Your task to perform on an android device: Search for macbook pro on walmart.com, select the first entry, and add it to the cart. Image 0: 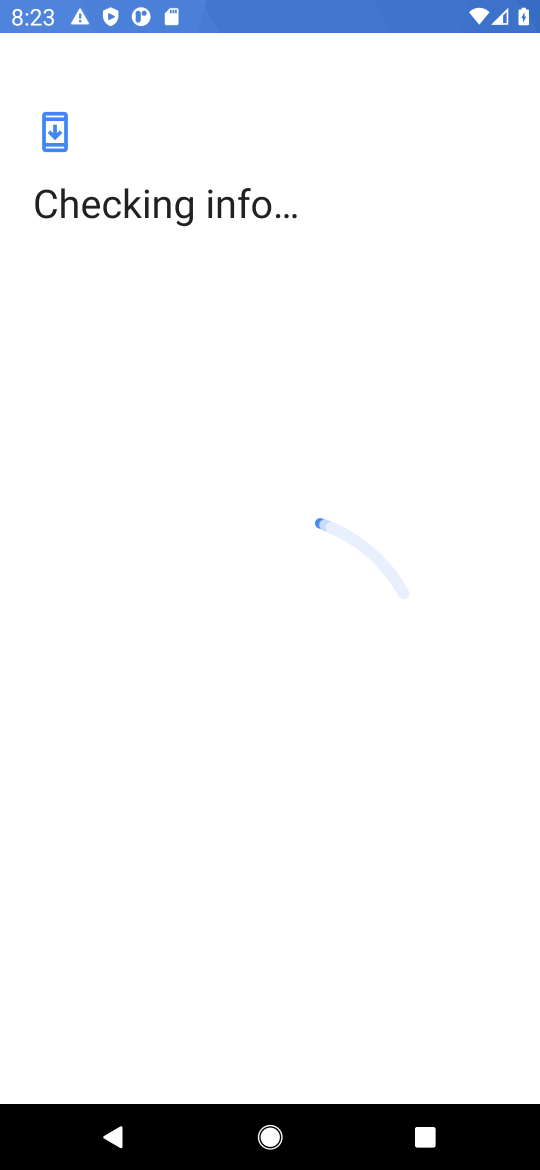
Step 0: press home button
Your task to perform on an android device: Search for macbook pro on walmart.com, select the first entry, and add it to the cart. Image 1: 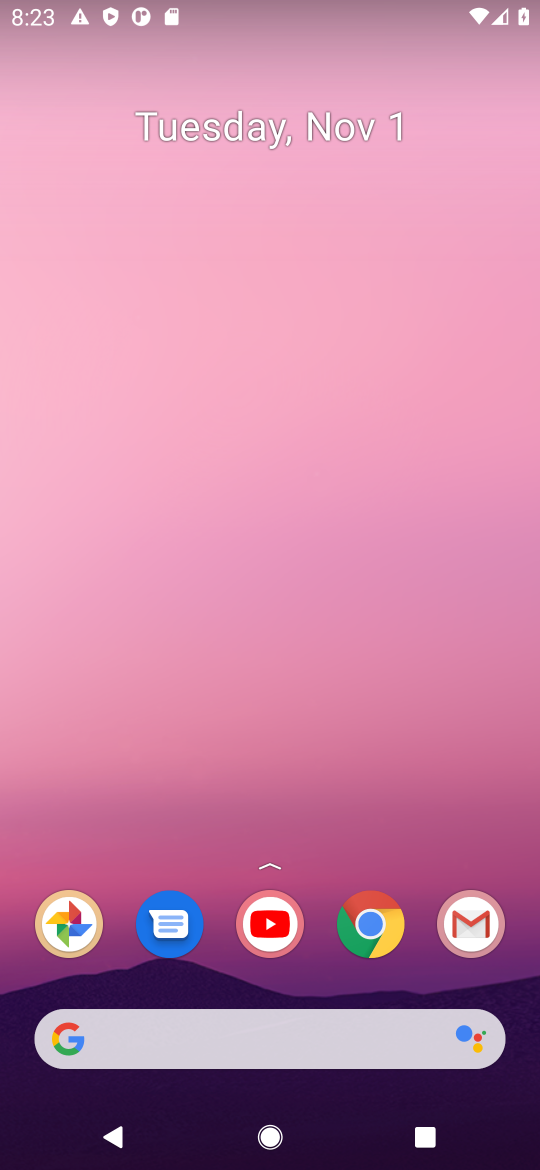
Step 1: click (107, 1046)
Your task to perform on an android device: Search for macbook pro on walmart.com, select the first entry, and add it to the cart. Image 2: 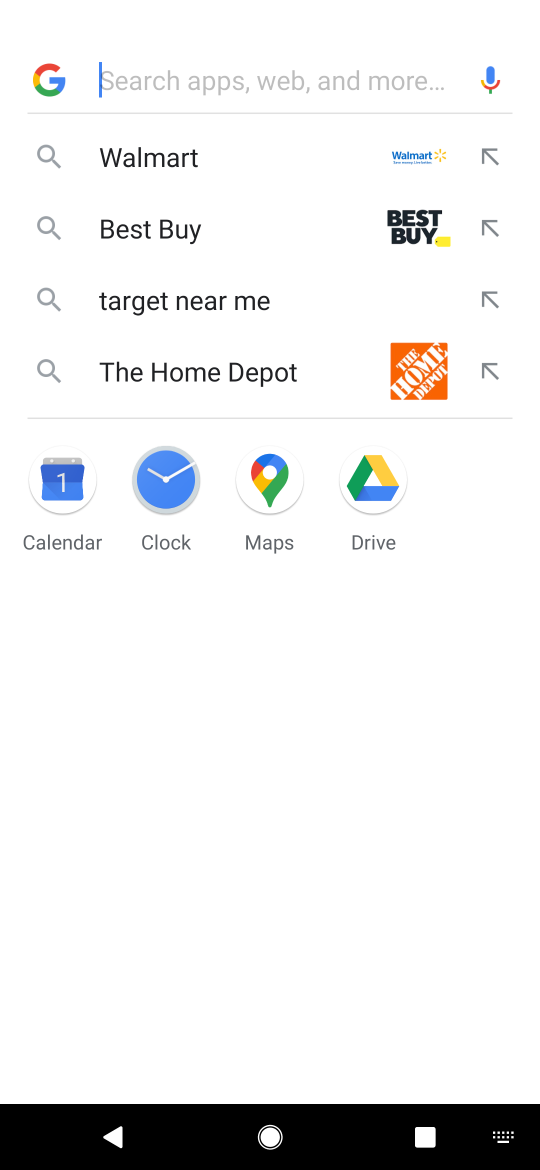
Step 2: type "walmart.com"
Your task to perform on an android device: Search for macbook pro on walmart.com, select the first entry, and add it to the cart. Image 3: 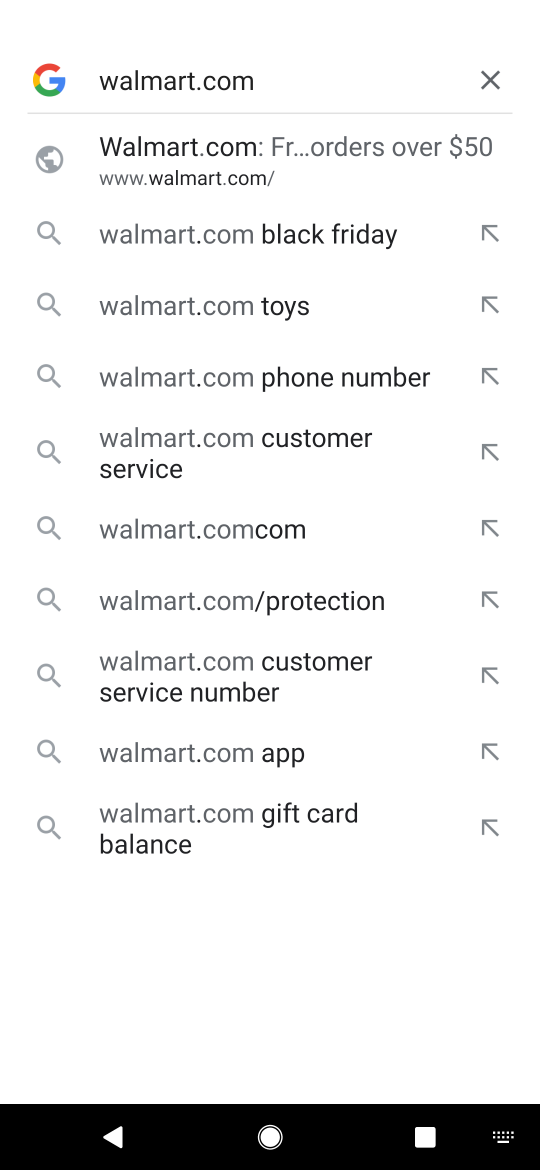
Step 3: press enter
Your task to perform on an android device: Search for macbook pro on walmart.com, select the first entry, and add it to the cart. Image 4: 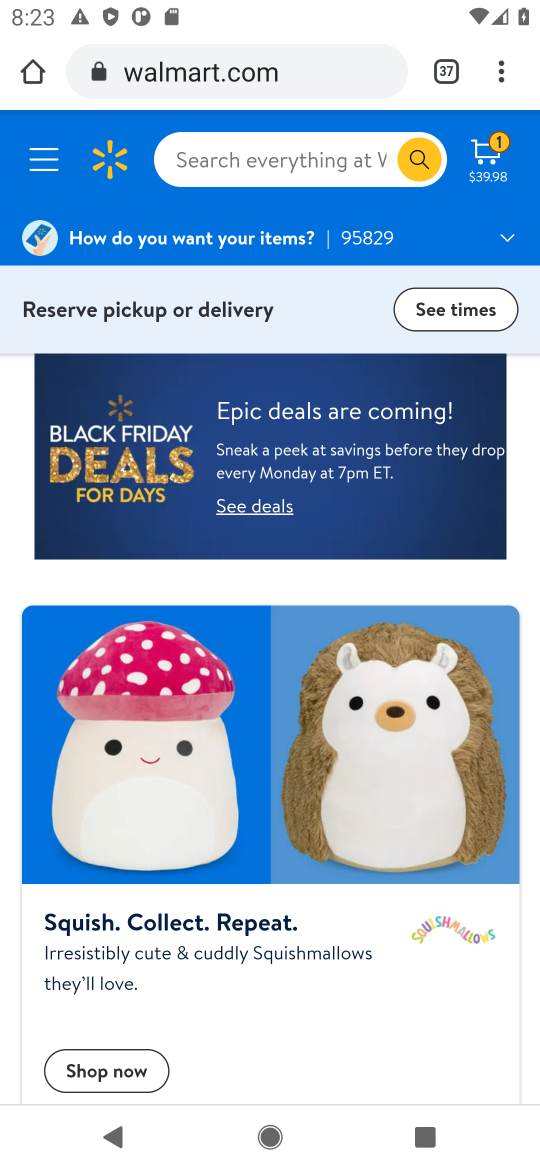
Step 4: click (195, 155)
Your task to perform on an android device: Search for macbook pro on walmart.com, select the first entry, and add it to the cart. Image 5: 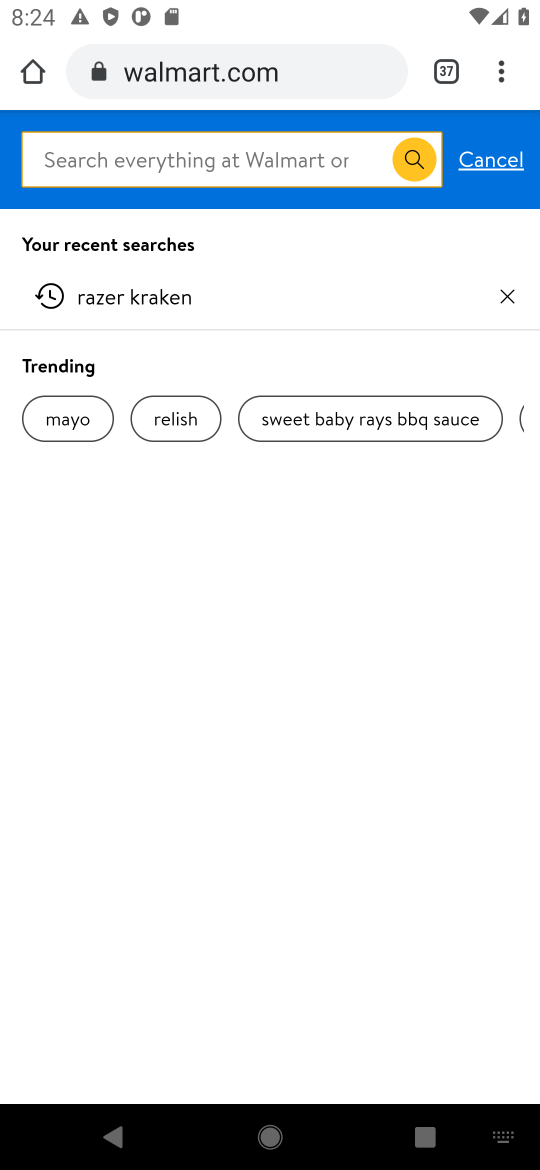
Step 5: type "macbook pro"
Your task to perform on an android device: Search for macbook pro on walmart.com, select the first entry, and add it to the cart. Image 6: 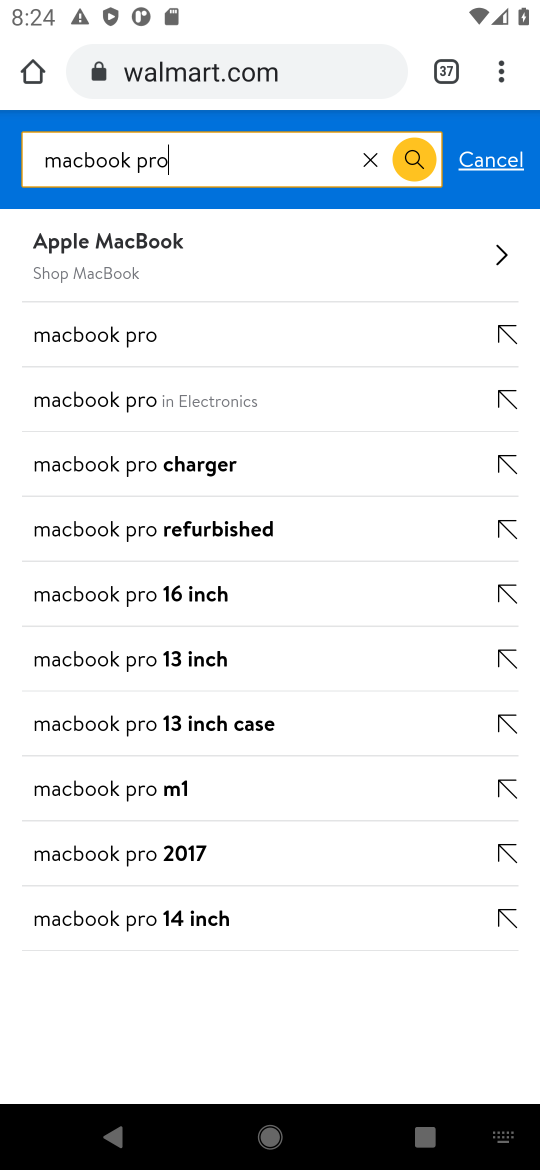
Step 6: click (409, 150)
Your task to perform on an android device: Search for macbook pro on walmart.com, select the first entry, and add it to the cart. Image 7: 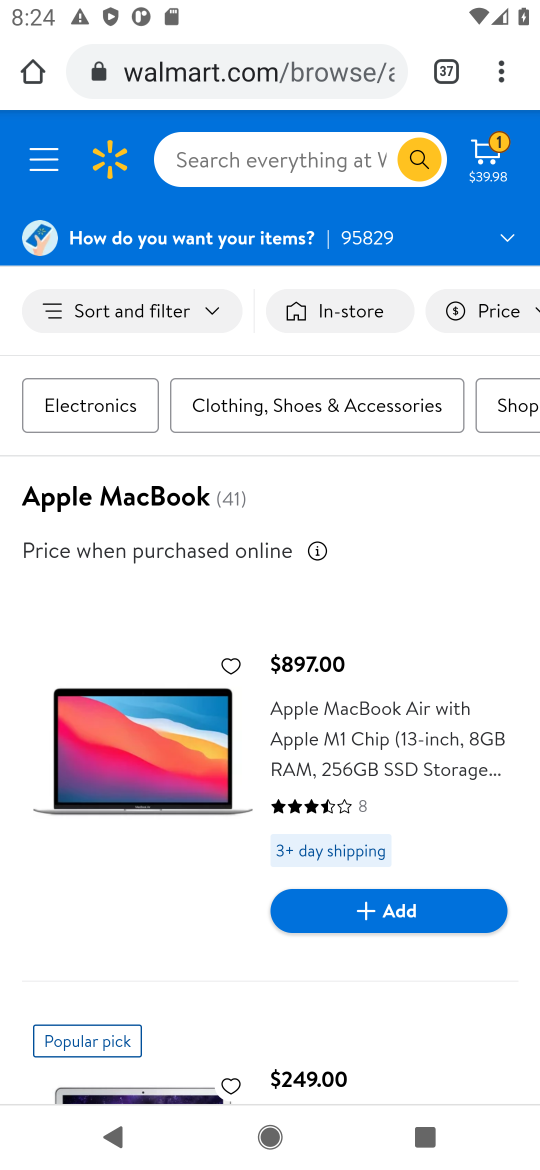
Step 7: click (394, 912)
Your task to perform on an android device: Search for macbook pro on walmart.com, select the first entry, and add it to the cart. Image 8: 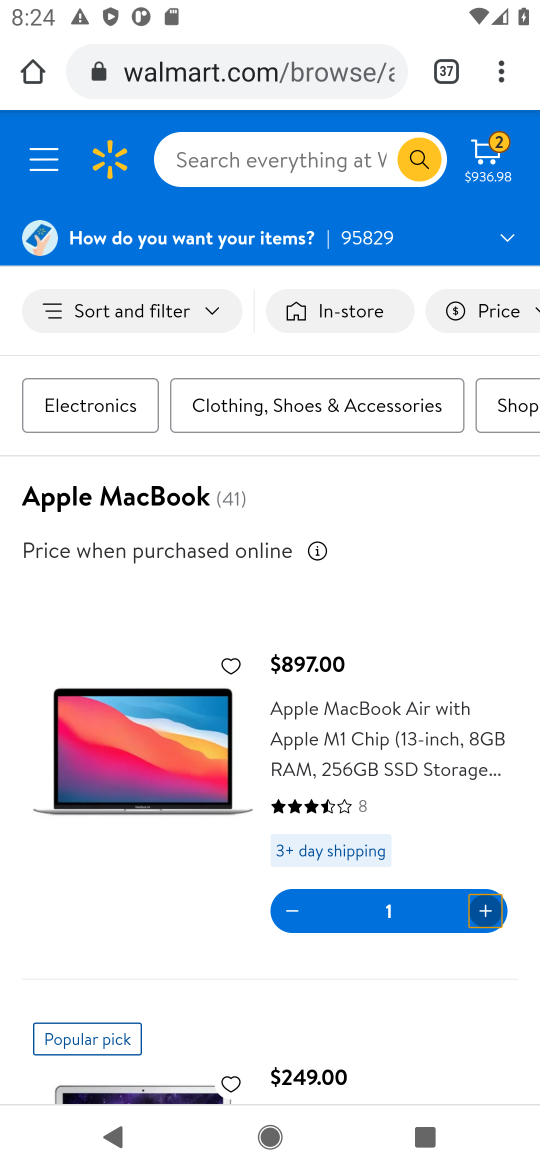
Step 8: task complete